Your task to perform on an android device: Search for flights from Tokyo to Mexico city Image 0: 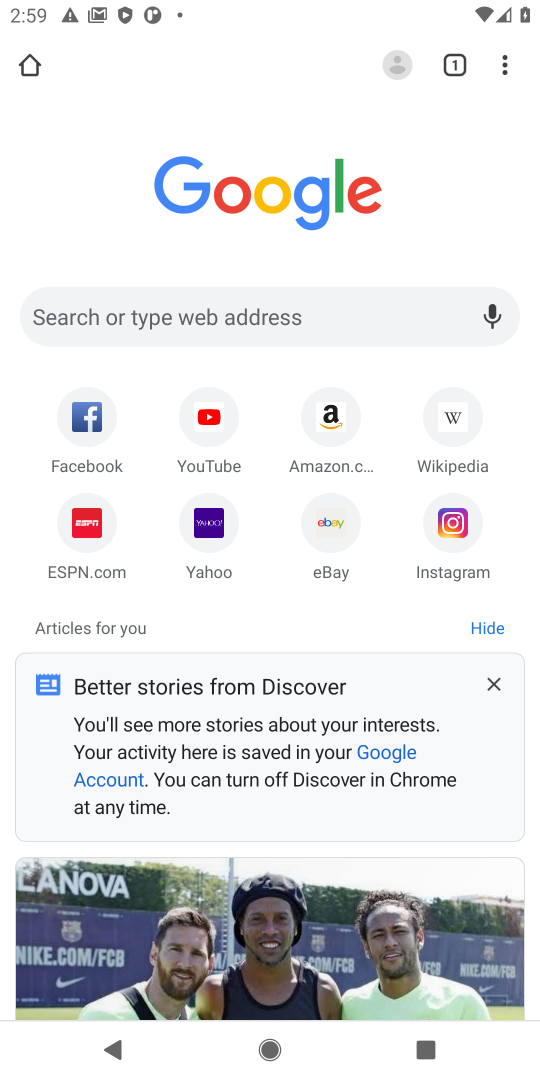
Step 0: click (130, 331)
Your task to perform on an android device: Search for flights from Tokyo to Mexico city Image 1: 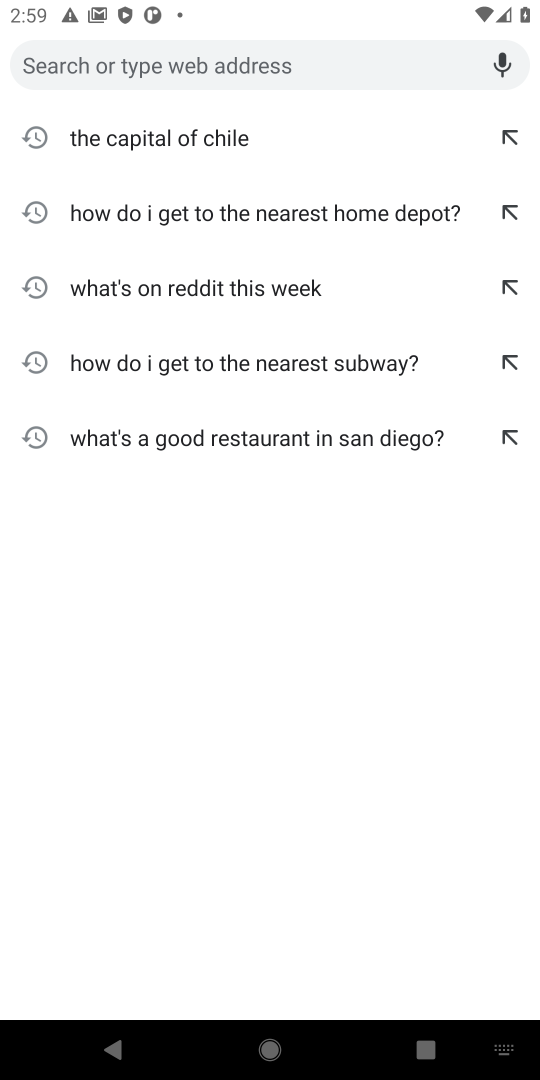
Step 1: type "flights from Tokyo to Mexico city"
Your task to perform on an android device: Search for flights from Tokyo to Mexico city Image 2: 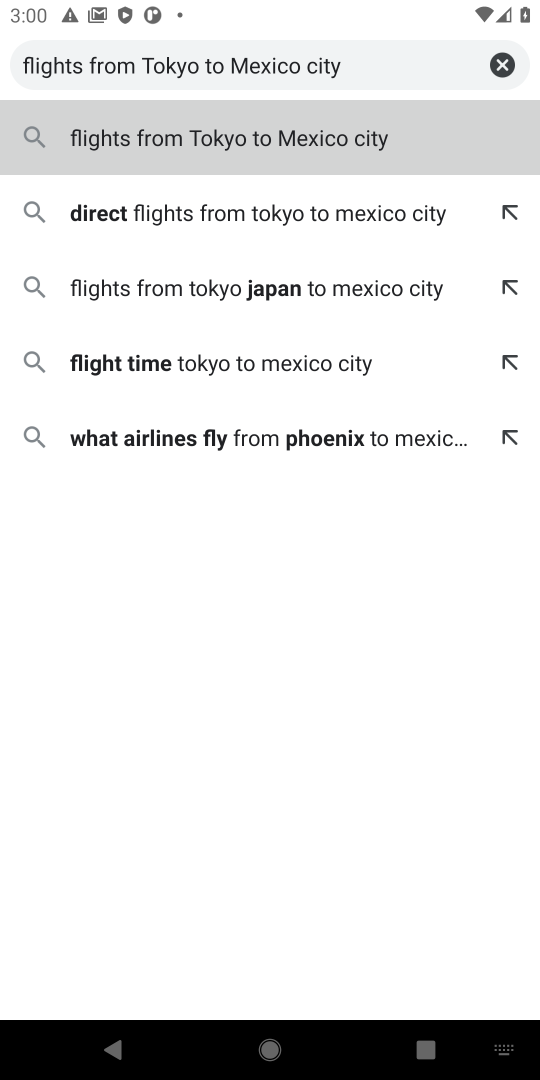
Step 2: click (254, 123)
Your task to perform on an android device: Search for flights from Tokyo to Mexico city Image 3: 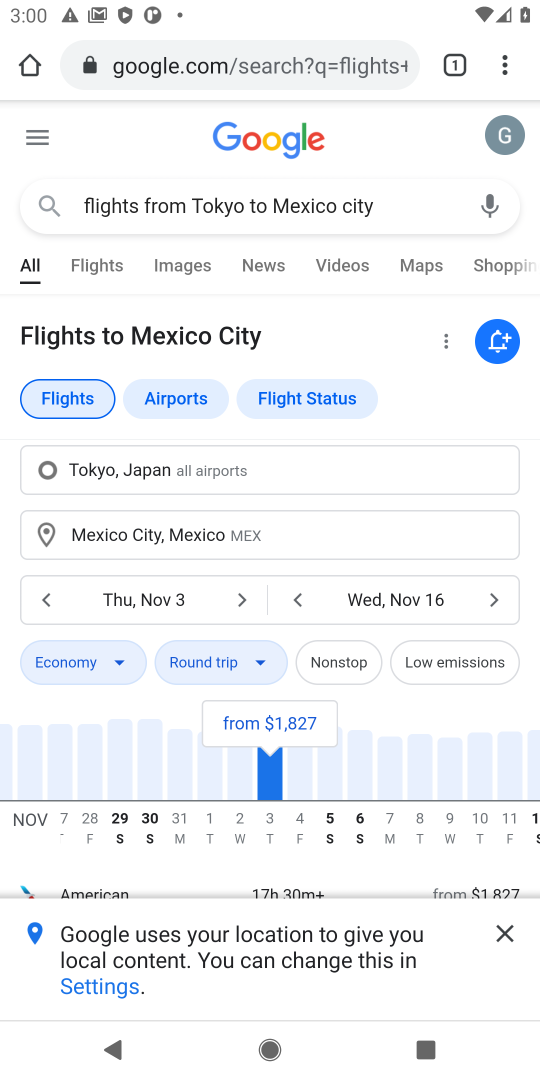
Step 3: task complete